Your task to perform on an android device: open chrome privacy settings Image 0: 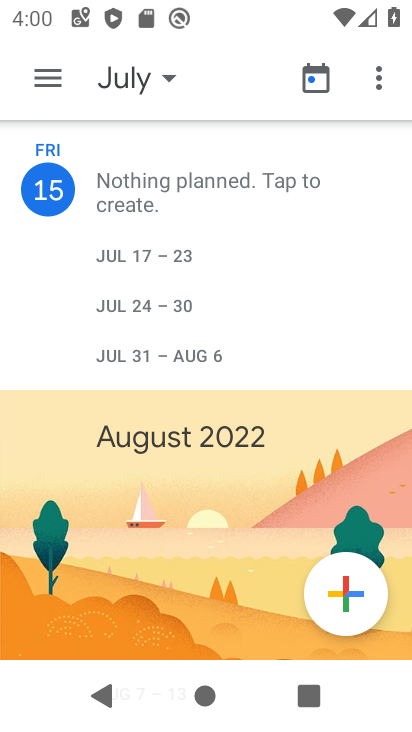
Step 0: drag from (245, 624) to (236, 306)
Your task to perform on an android device: open chrome privacy settings Image 1: 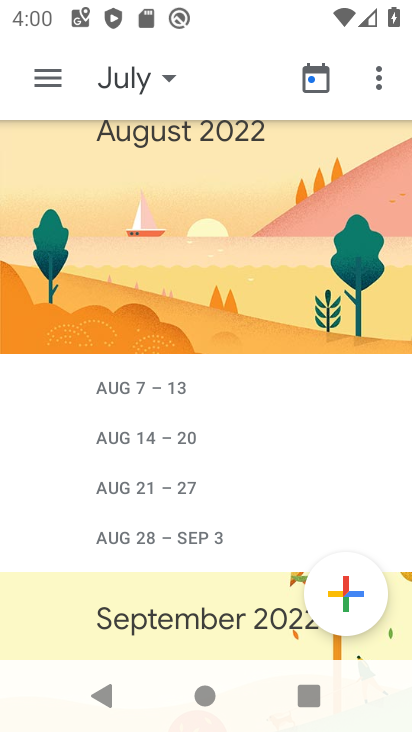
Step 1: press home button
Your task to perform on an android device: open chrome privacy settings Image 2: 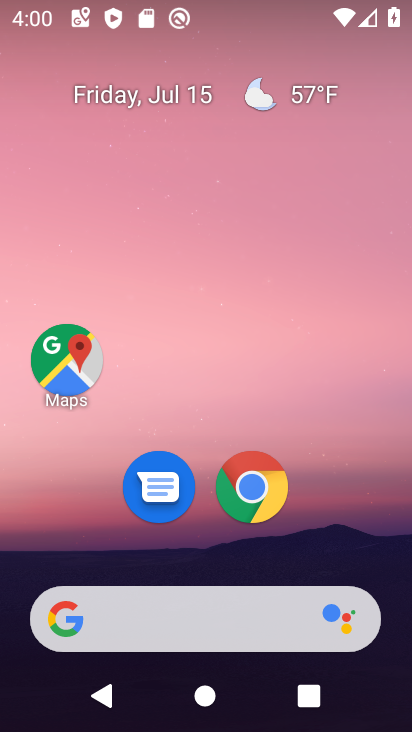
Step 2: drag from (285, 585) to (304, 244)
Your task to perform on an android device: open chrome privacy settings Image 3: 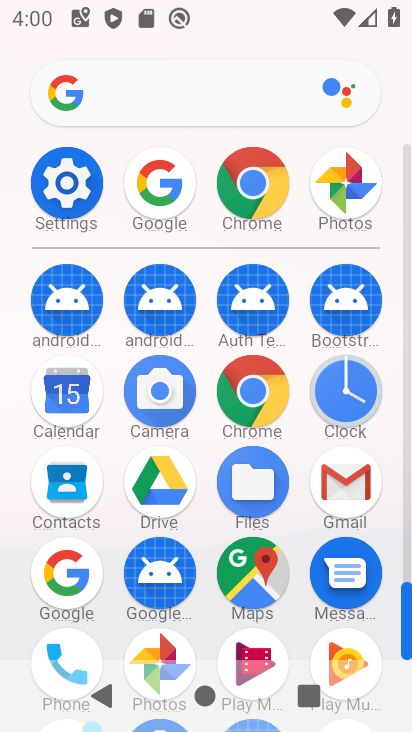
Step 3: click (255, 223)
Your task to perform on an android device: open chrome privacy settings Image 4: 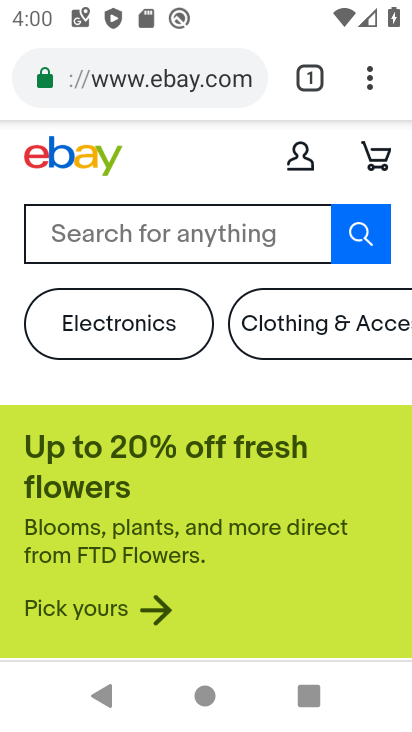
Step 4: click (373, 72)
Your task to perform on an android device: open chrome privacy settings Image 5: 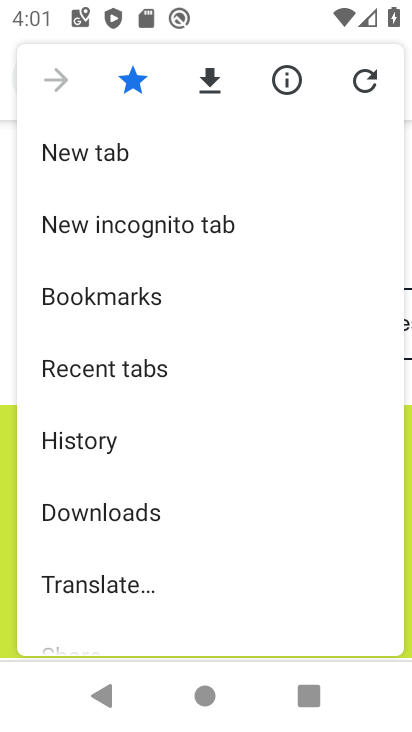
Step 5: drag from (155, 535) to (158, 355)
Your task to perform on an android device: open chrome privacy settings Image 6: 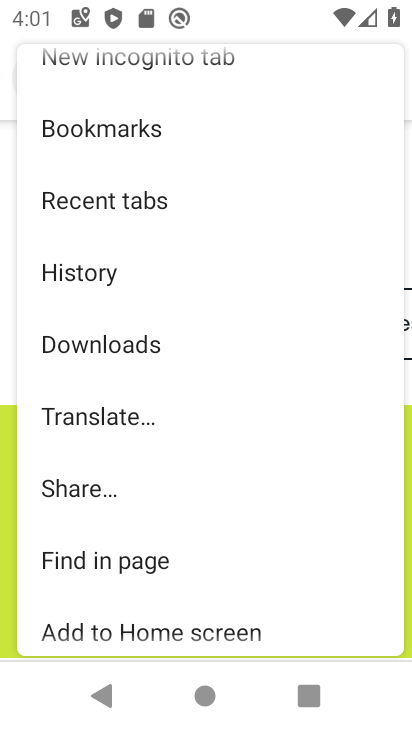
Step 6: drag from (149, 522) to (179, 313)
Your task to perform on an android device: open chrome privacy settings Image 7: 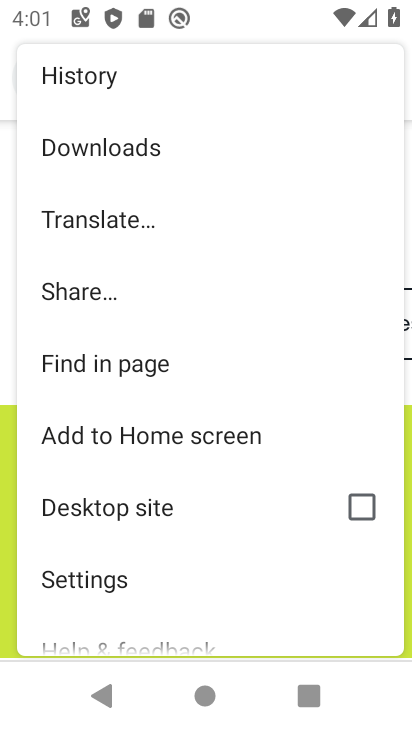
Step 7: drag from (119, 528) to (147, 319)
Your task to perform on an android device: open chrome privacy settings Image 8: 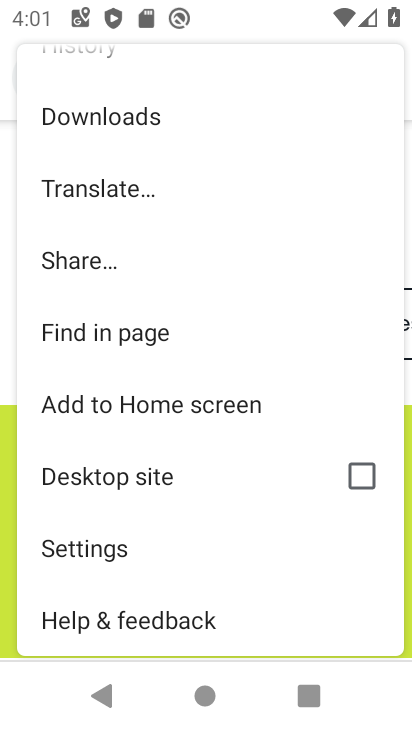
Step 8: click (113, 549)
Your task to perform on an android device: open chrome privacy settings Image 9: 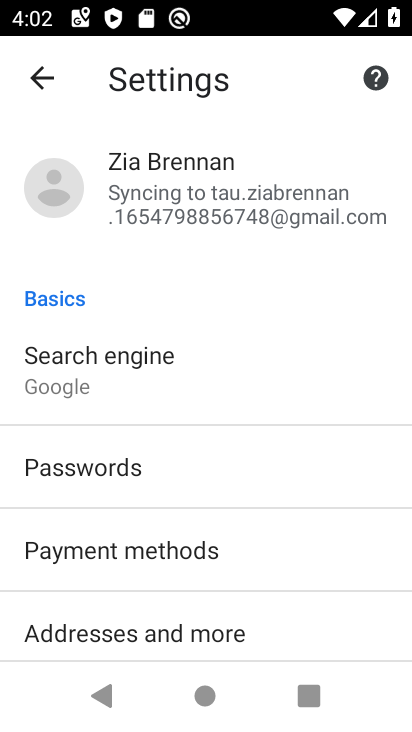
Step 9: drag from (120, 559) to (162, 242)
Your task to perform on an android device: open chrome privacy settings Image 10: 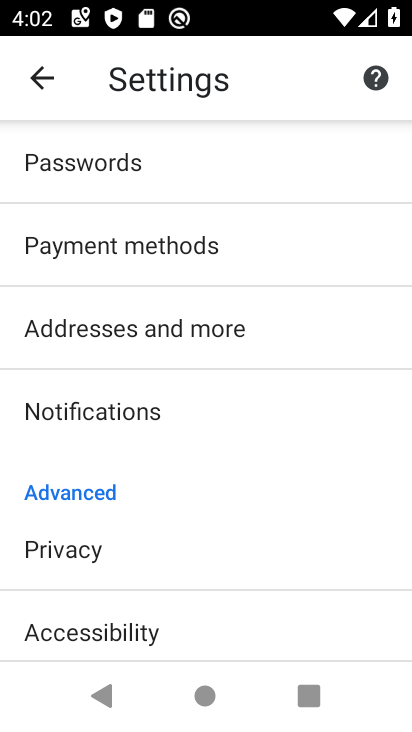
Step 10: click (87, 556)
Your task to perform on an android device: open chrome privacy settings Image 11: 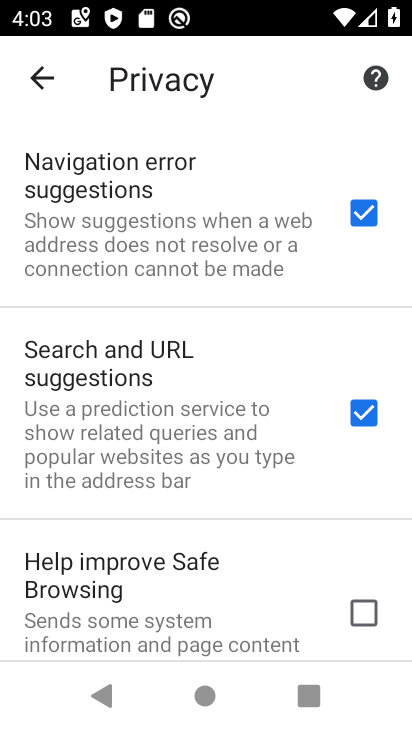
Step 11: task complete